Your task to perform on an android device: open a new tab in the chrome app Image 0: 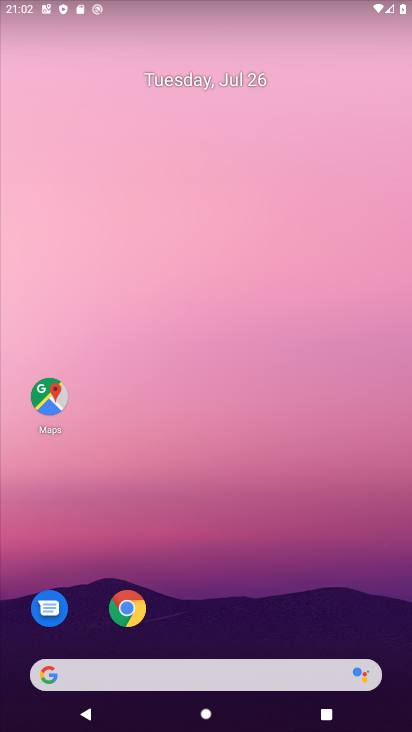
Step 0: click (125, 620)
Your task to perform on an android device: open a new tab in the chrome app Image 1: 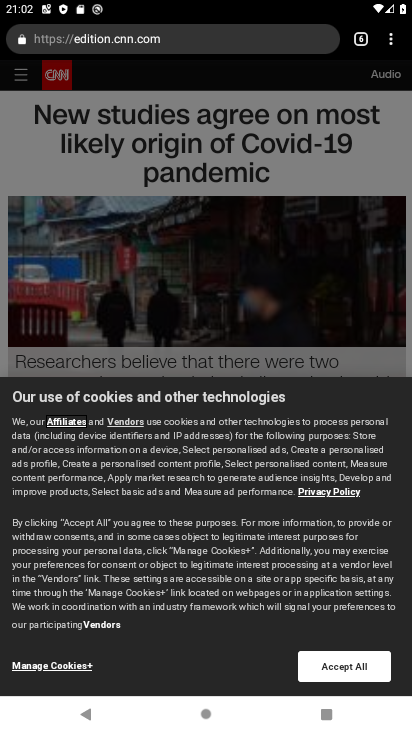
Step 1: click (366, 40)
Your task to perform on an android device: open a new tab in the chrome app Image 2: 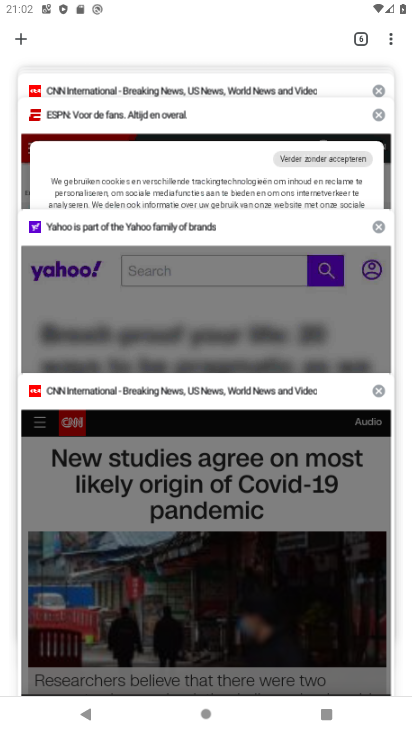
Step 2: click (10, 41)
Your task to perform on an android device: open a new tab in the chrome app Image 3: 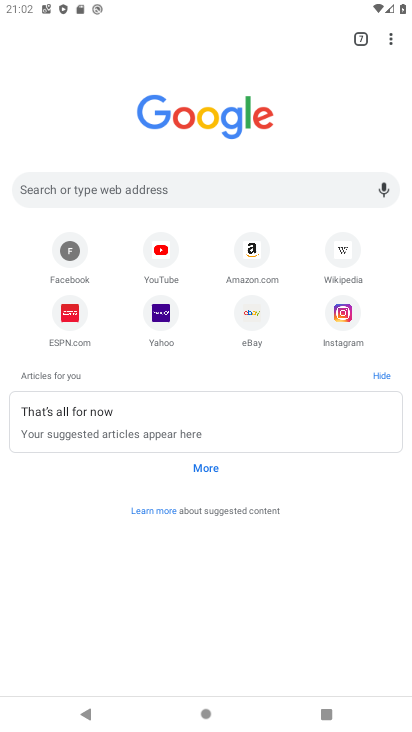
Step 3: task complete